Your task to perform on an android device: Open Google Maps Image 0: 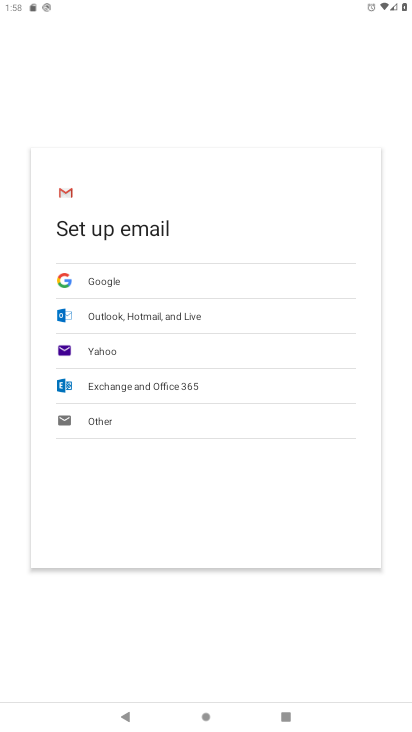
Step 0: press home button
Your task to perform on an android device: Open Google Maps Image 1: 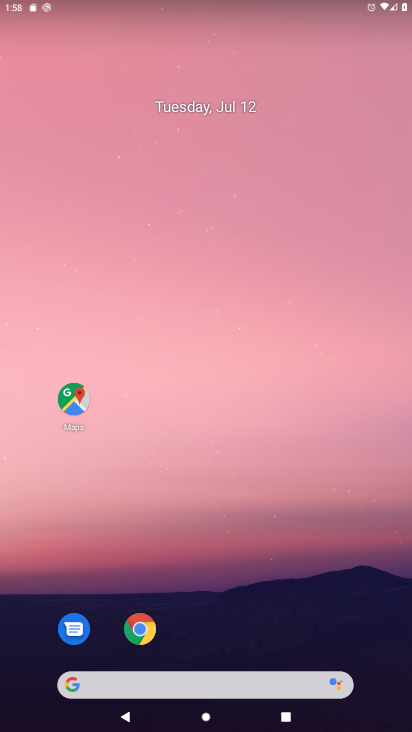
Step 1: drag from (278, 630) to (257, 11)
Your task to perform on an android device: Open Google Maps Image 2: 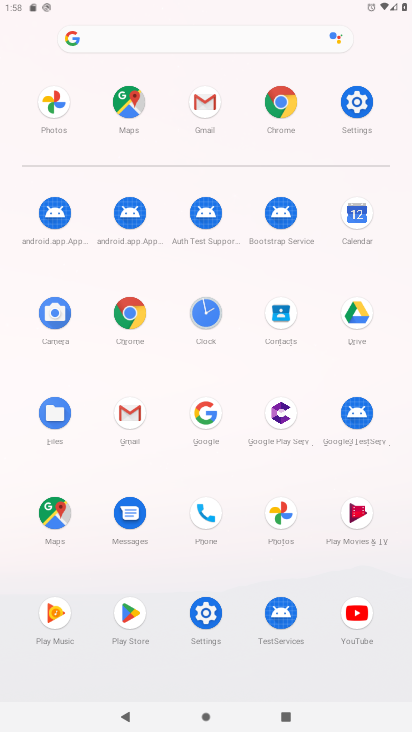
Step 2: click (66, 503)
Your task to perform on an android device: Open Google Maps Image 3: 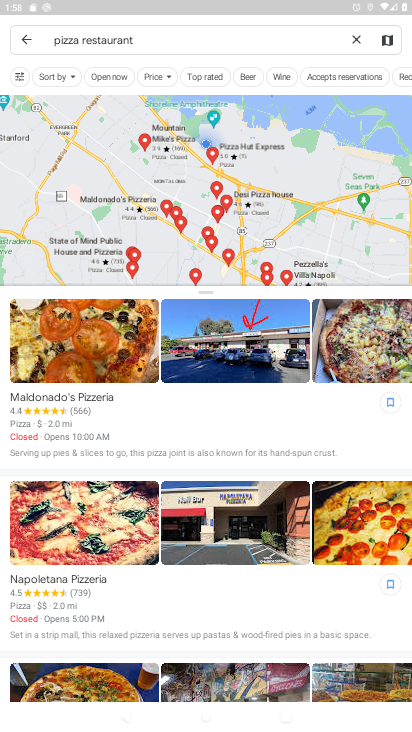
Step 3: task complete